Your task to perform on an android device: View the shopping cart on costco. Add asus zenbook to the cart on costco Image 0: 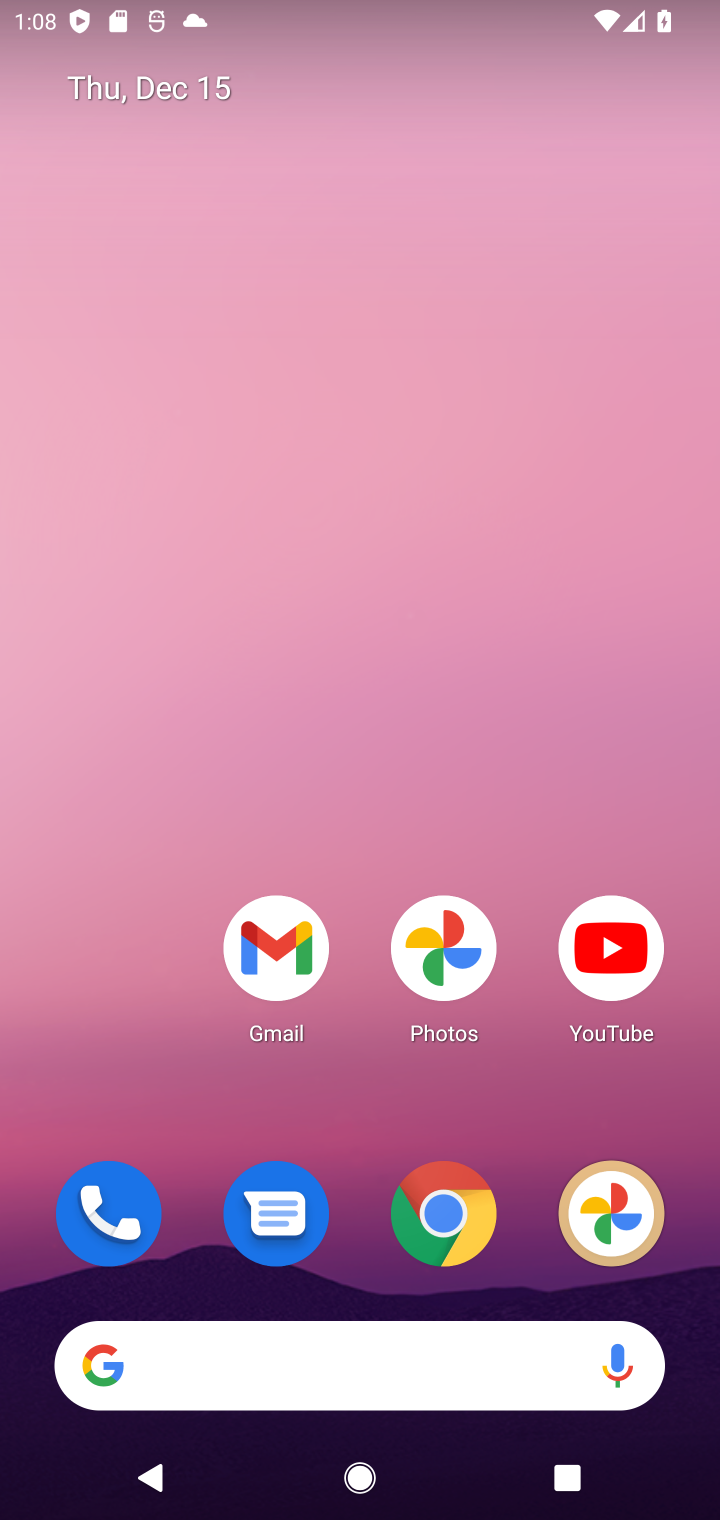
Step 0: click (431, 1174)
Your task to perform on an android device: View the shopping cart on costco. Add asus zenbook to the cart on costco Image 1: 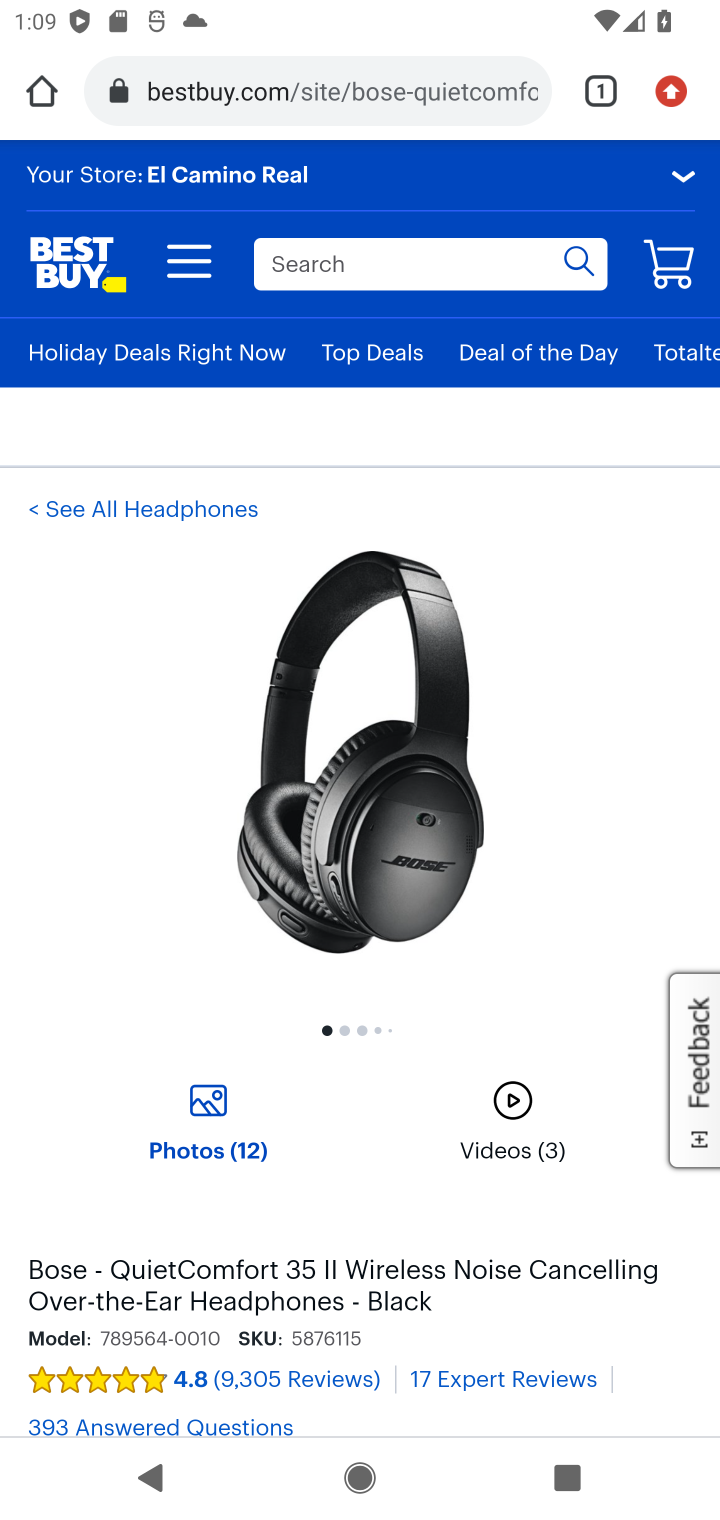
Step 1: click (351, 97)
Your task to perform on an android device: View the shopping cart on costco. Add asus zenbook to the cart on costco Image 2: 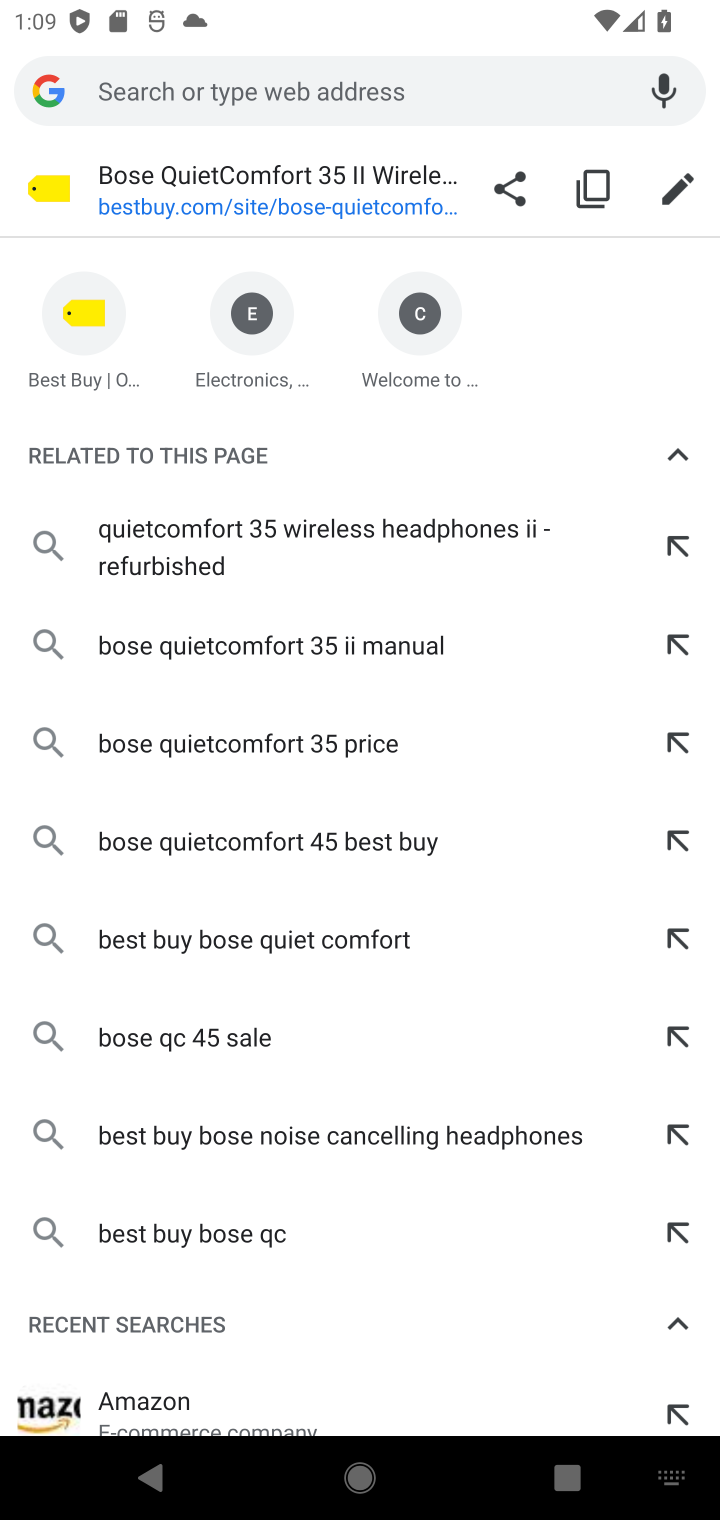
Step 2: type "costco"
Your task to perform on an android device: View the shopping cart on costco. Add asus zenbook to the cart on costco Image 3: 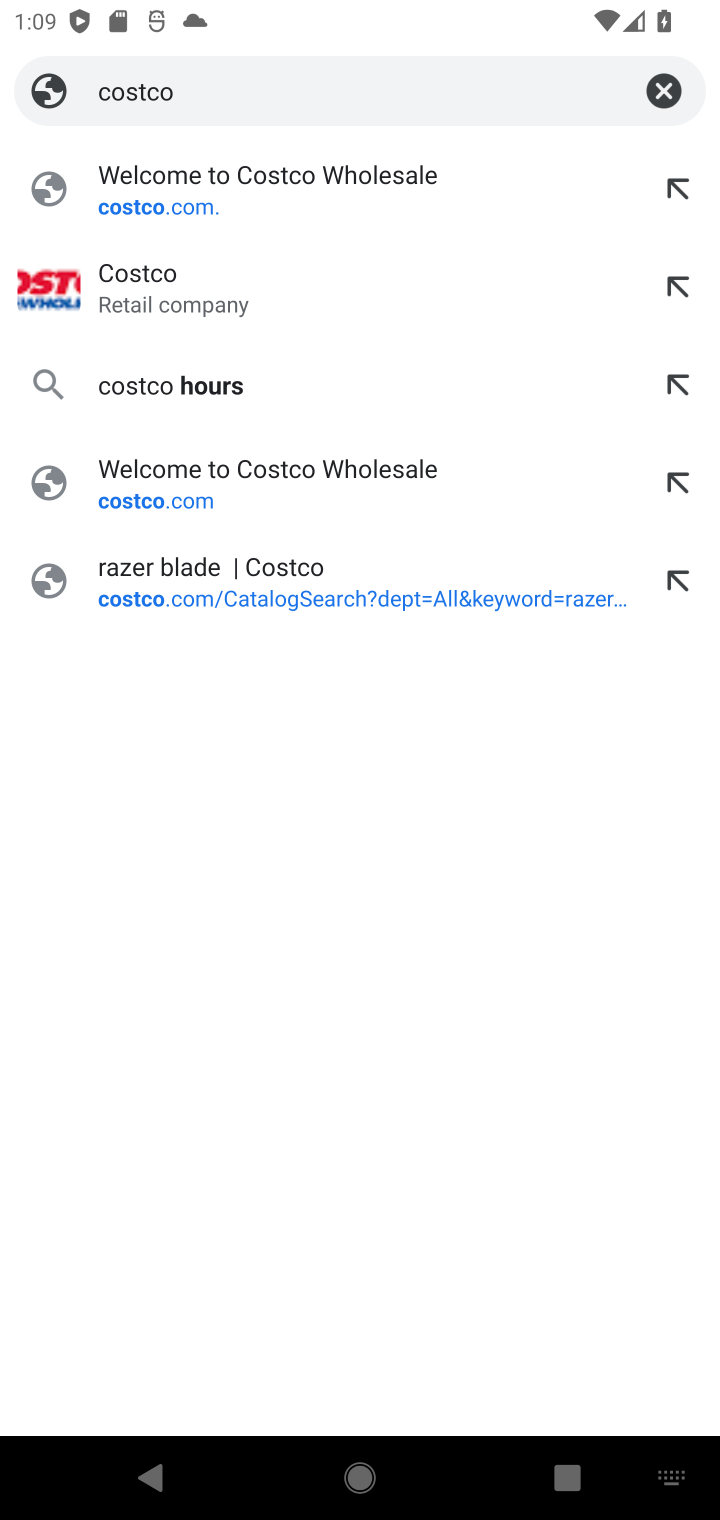
Step 3: click (169, 294)
Your task to perform on an android device: View the shopping cart on costco. Add asus zenbook to the cart on costco Image 4: 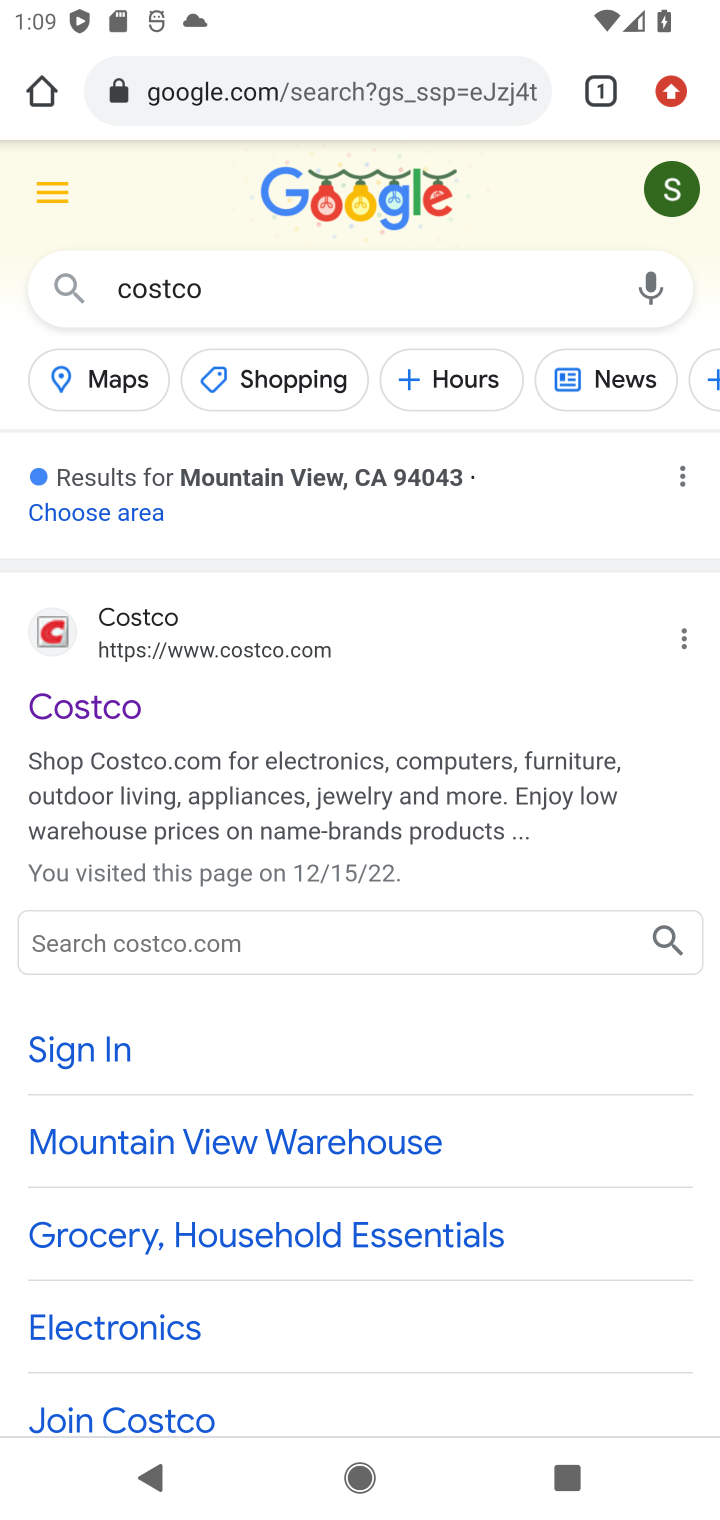
Step 4: click (112, 694)
Your task to perform on an android device: View the shopping cart on costco. Add asus zenbook to the cart on costco Image 5: 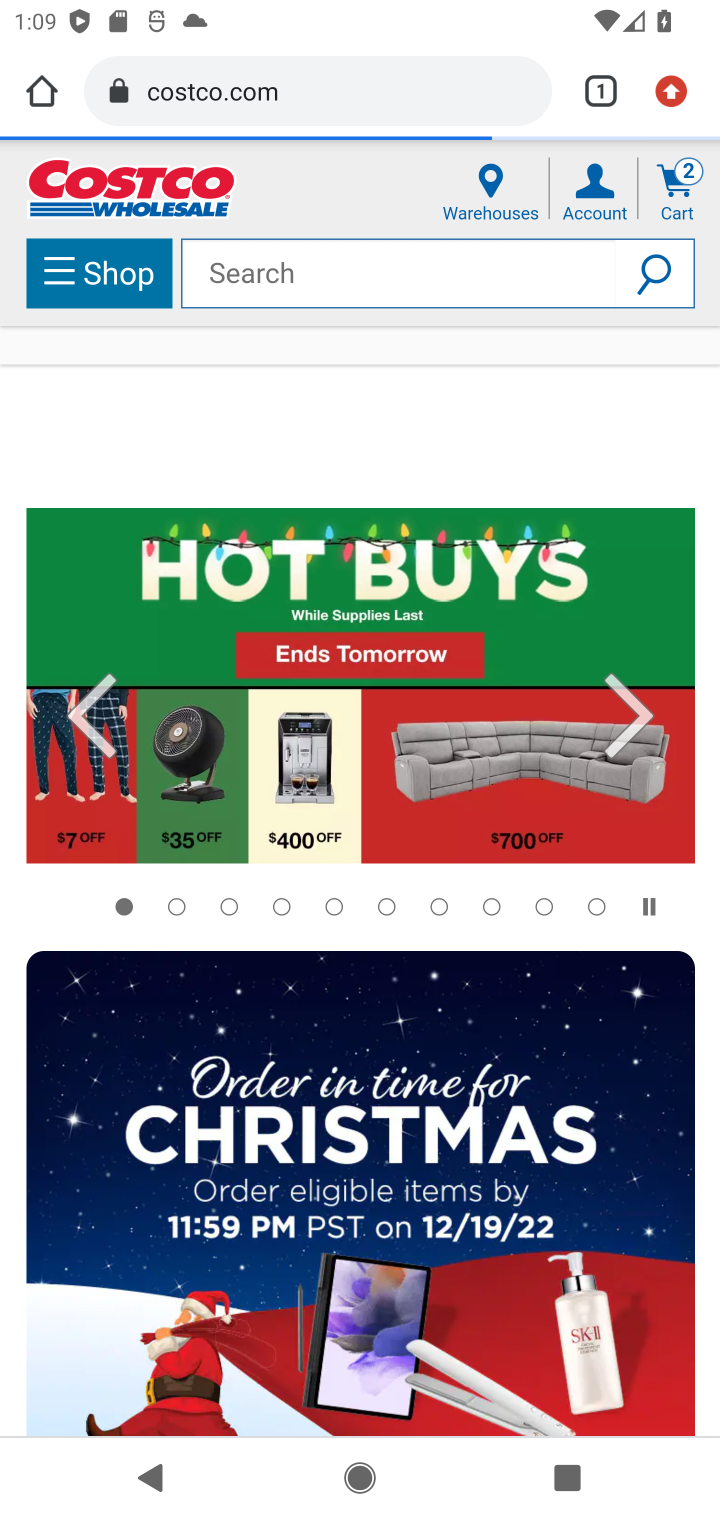
Step 5: click (319, 303)
Your task to perform on an android device: View the shopping cart on costco. Add asus zenbook to the cart on costco Image 6: 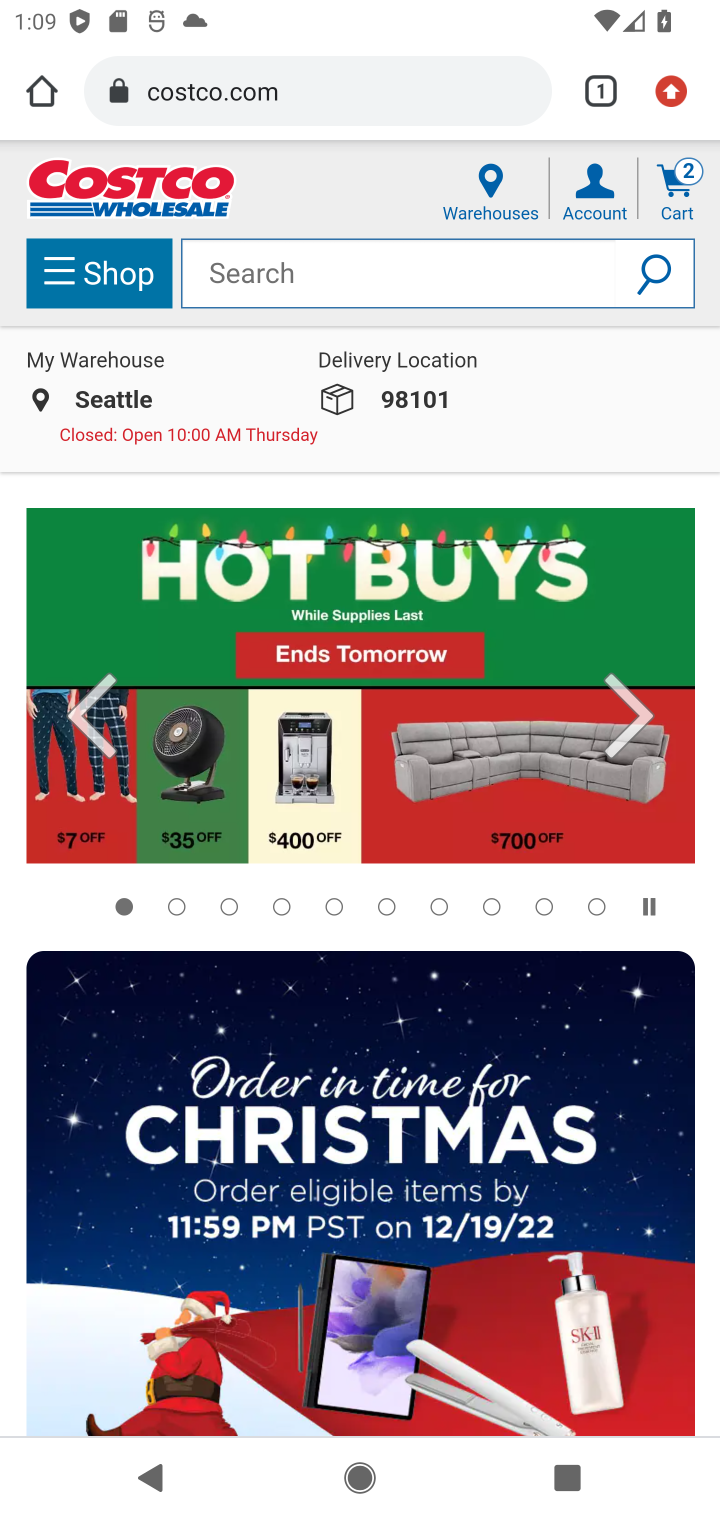
Step 6: click (316, 268)
Your task to perform on an android device: View the shopping cart on costco. Add asus zenbook to the cart on costco Image 7: 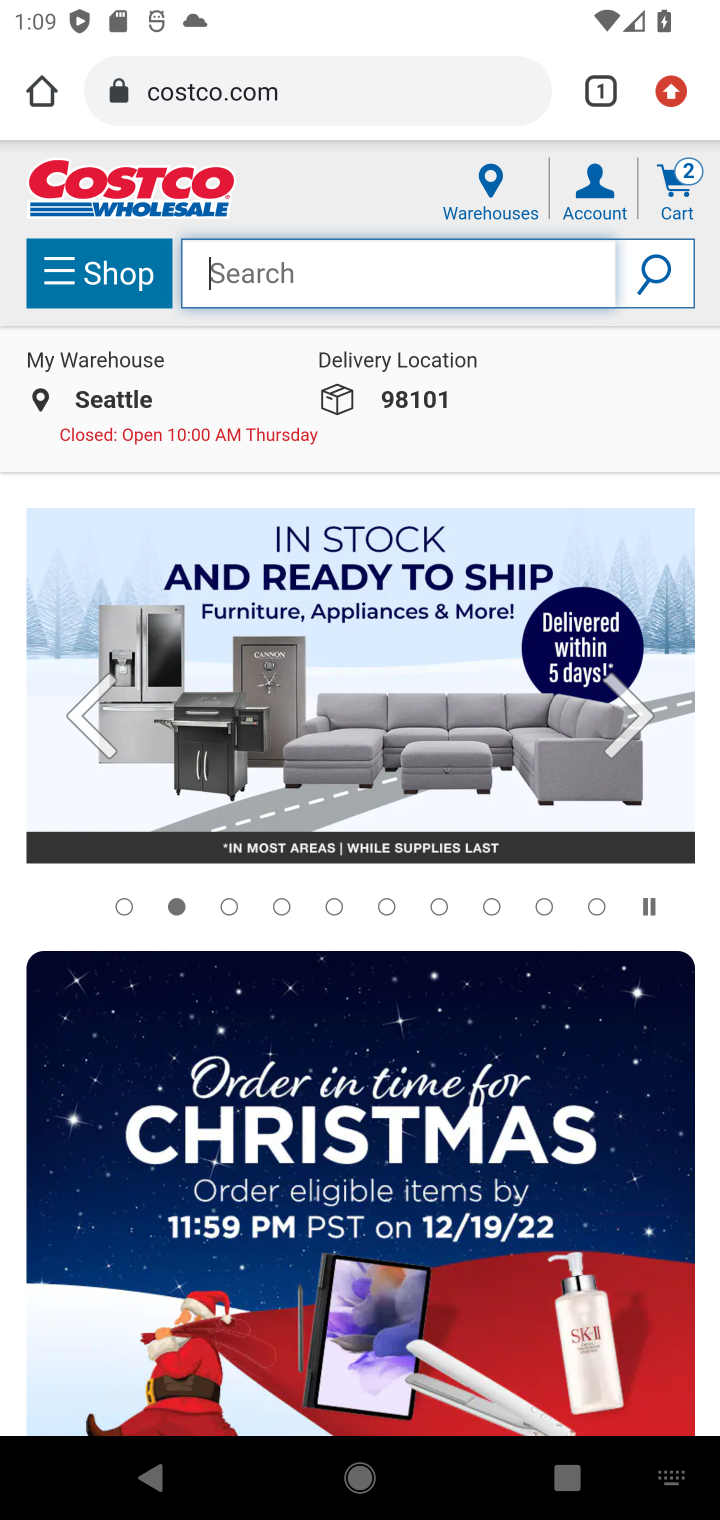
Step 7: type "asus zenbook"
Your task to perform on an android device: View the shopping cart on costco. Add asus zenbook to the cart on costco Image 8: 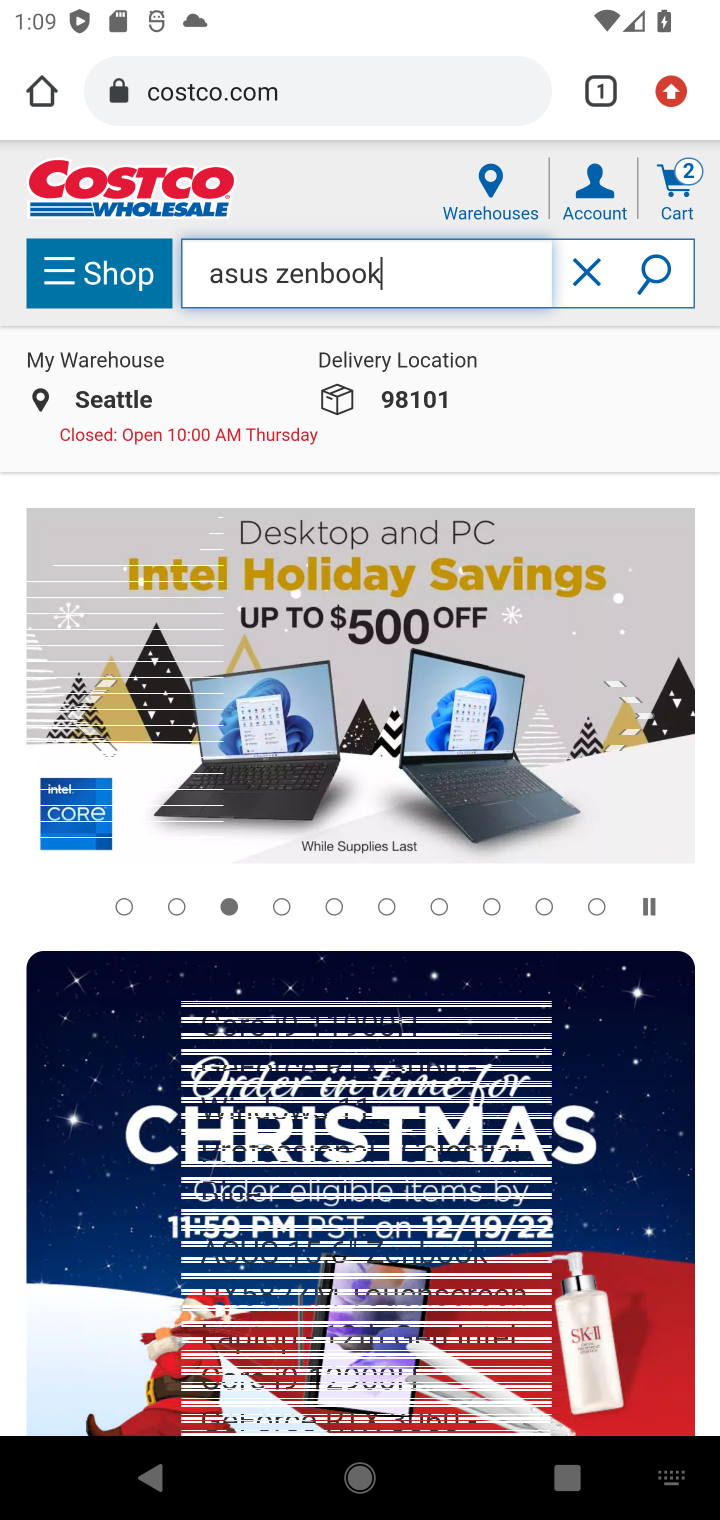
Step 8: click (647, 289)
Your task to perform on an android device: View the shopping cart on costco. Add asus zenbook to the cart on costco Image 9: 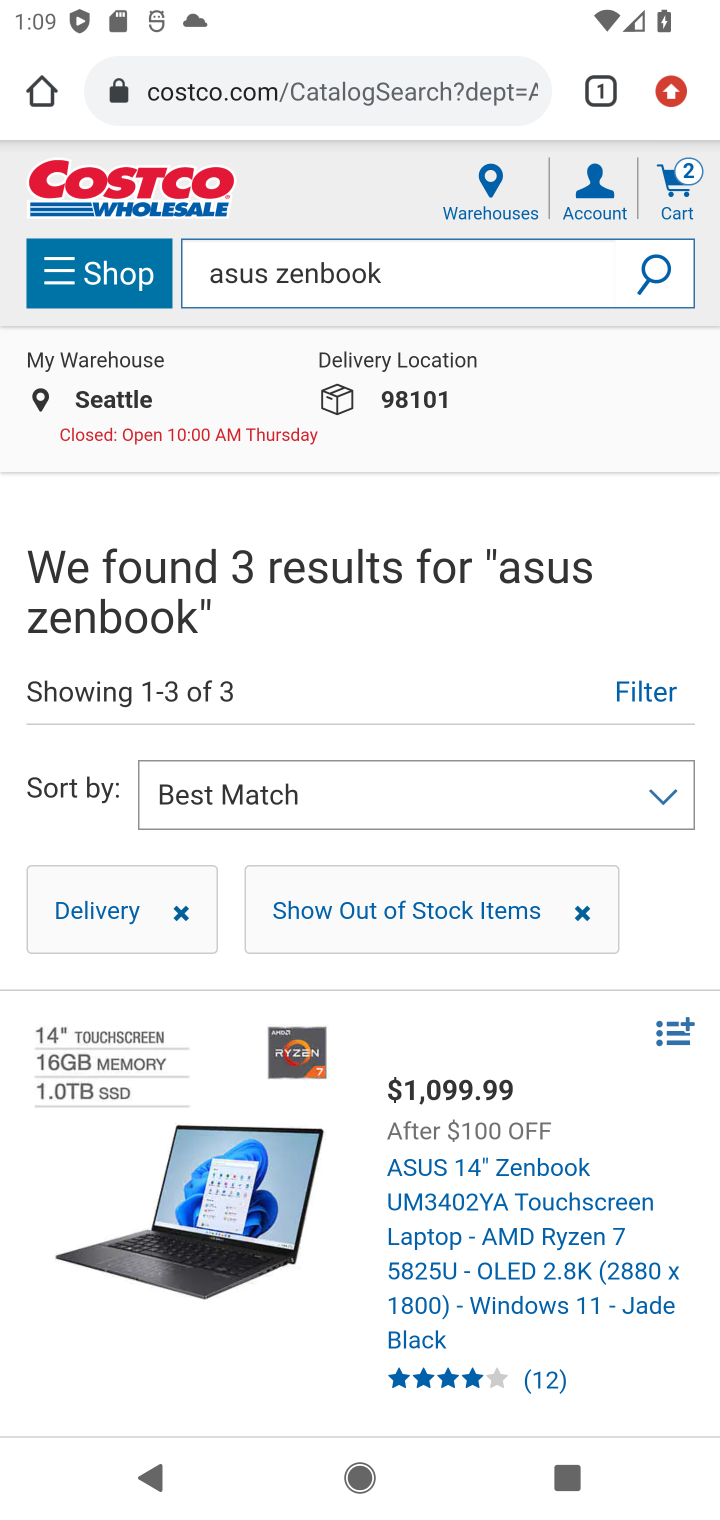
Step 9: click (455, 1198)
Your task to perform on an android device: View the shopping cart on costco. Add asus zenbook to the cart on costco Image 10: 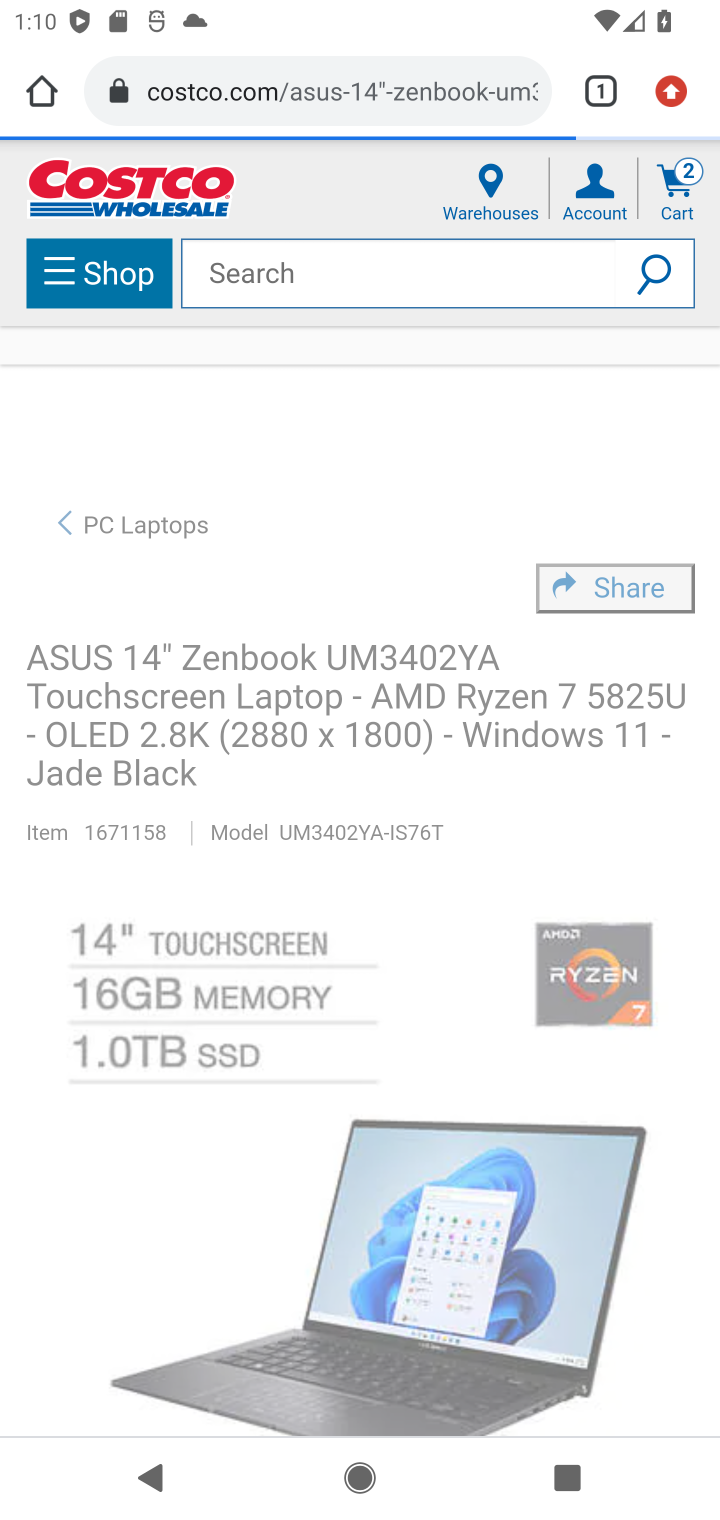
Step 10: drag from (156, 1191) to (174, 286)
Your task to perform on an android device: View the shopping cart on costco. Add asus zenbook to the cart on costco Image 11: 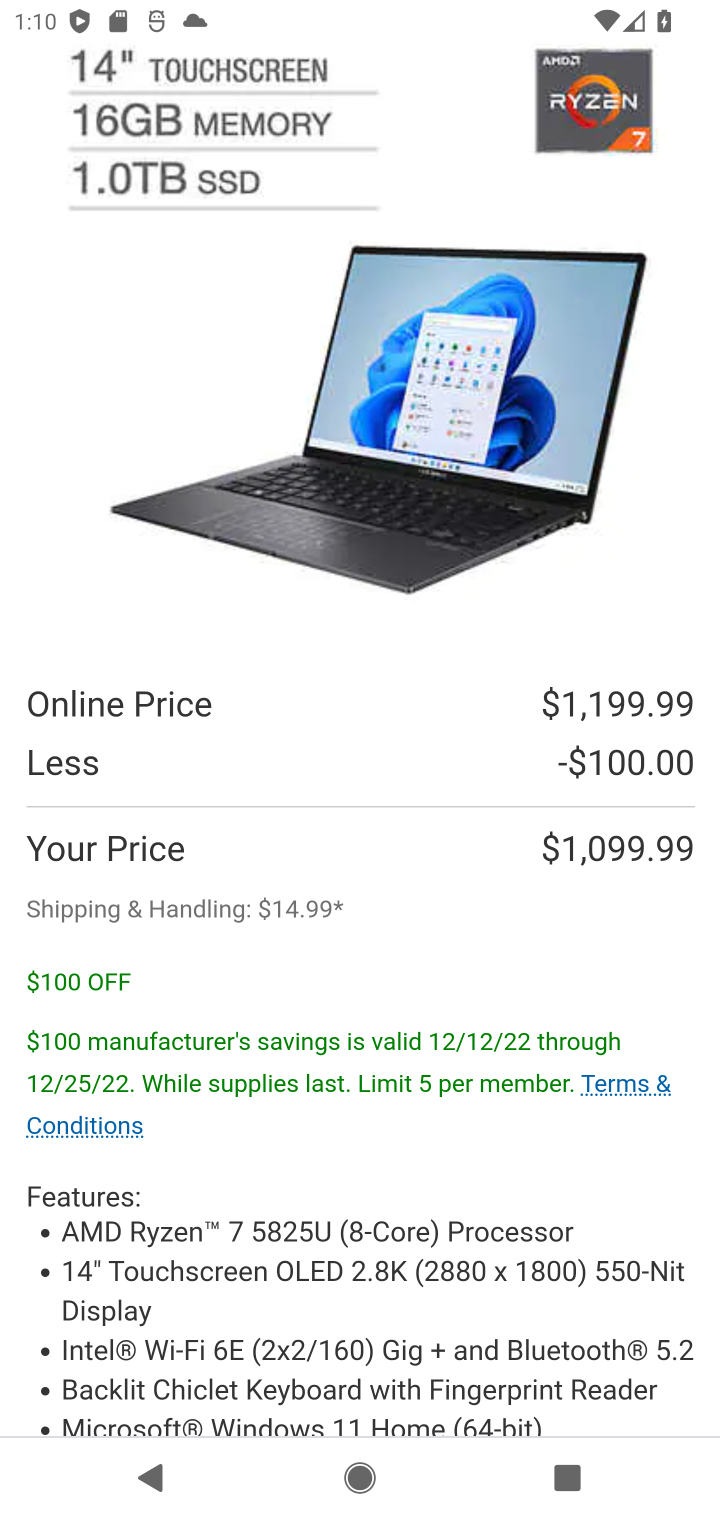
Step 11: drag from (399, 1213) to (405, 327)
Your task to perform on an android device: View the shopping cart on costco. Add asus zenbook to the cart on costco Image 12: 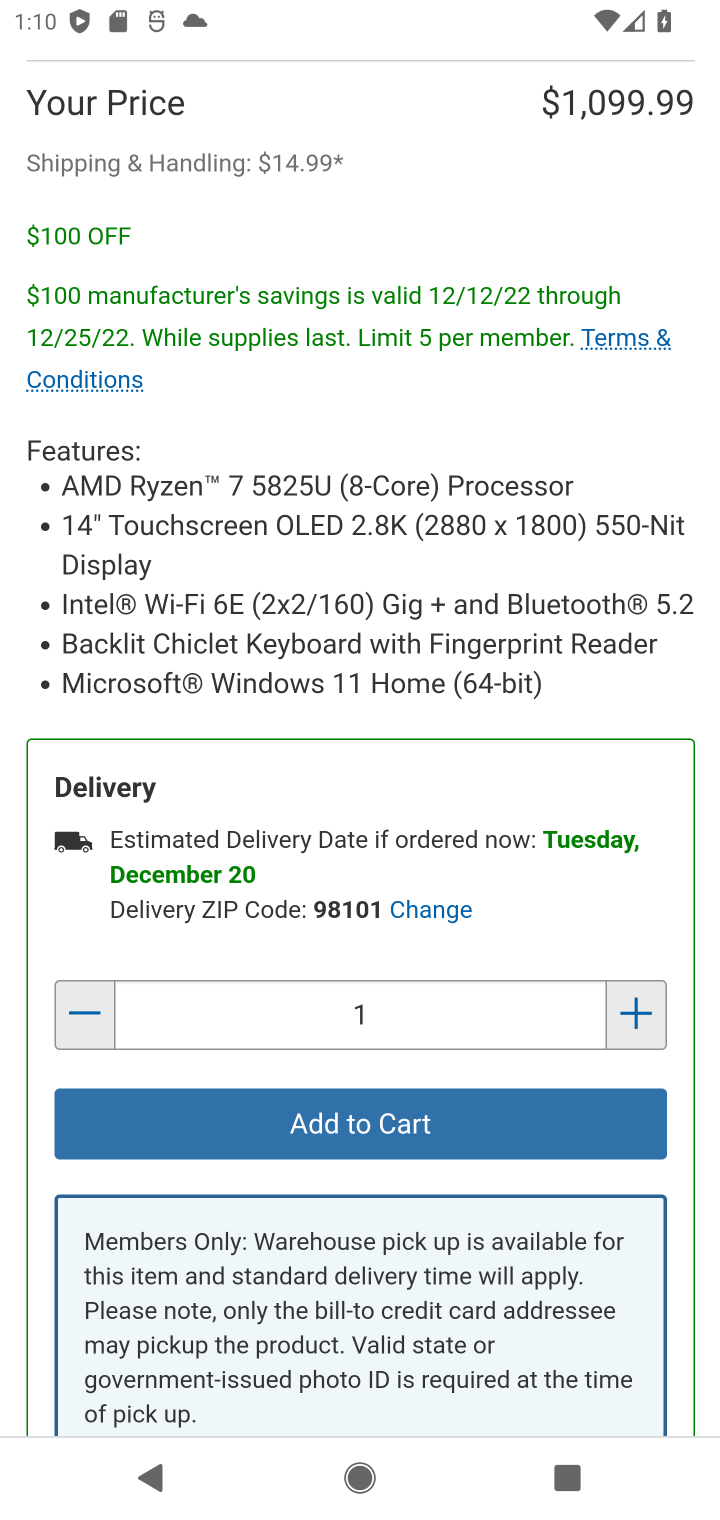
Step 12: click (472, 1155)
Your task to perform on an android device: View the shopping cart on costco. Add asus zenbook to the cart on costco Image 13: 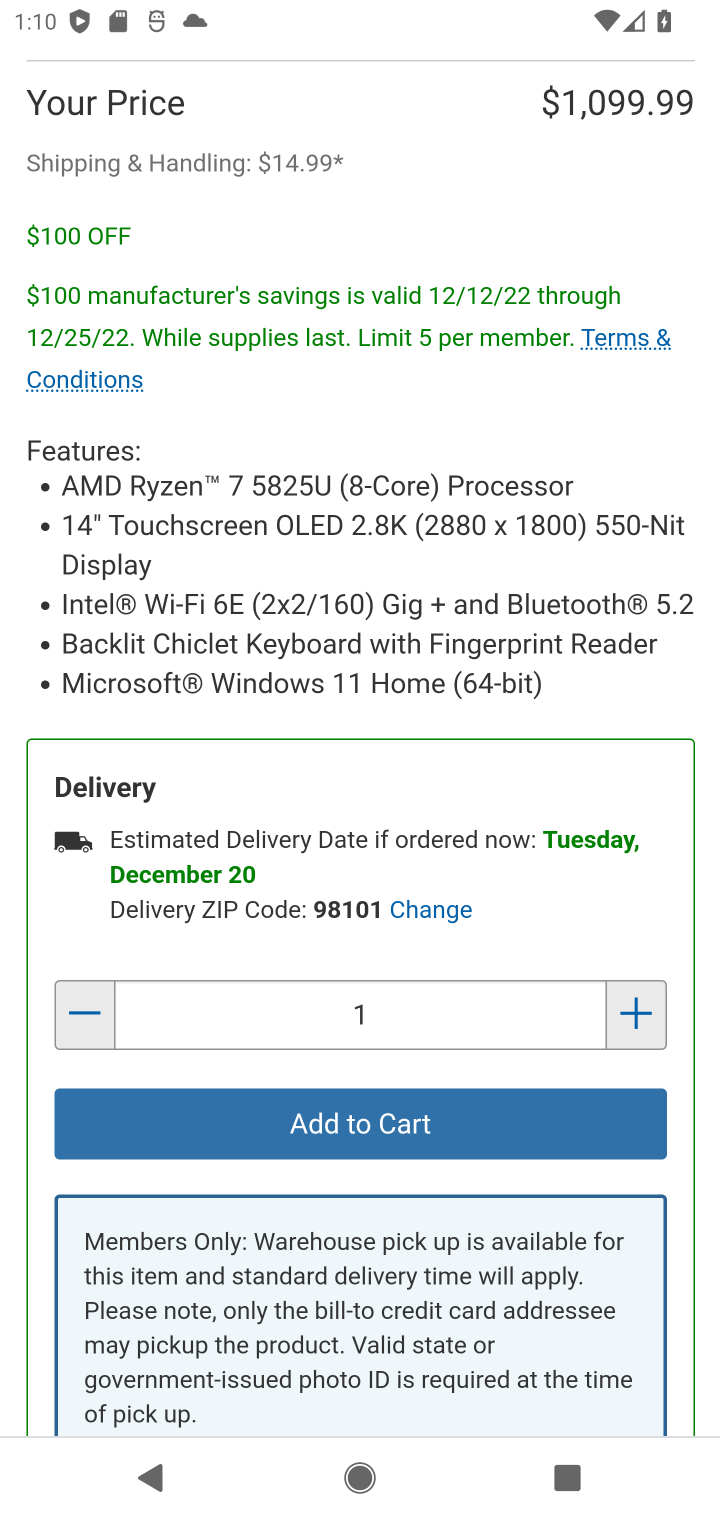
Step 13: task complete